Your task to perform on an android device: find photos in the google photos app Image 0: 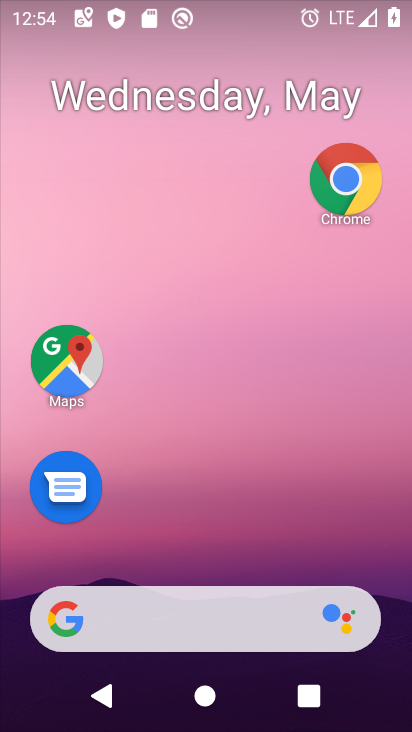
Step 0: drag from (212, 544) to (191, 121)
Your task to perform on an android device: find photos in the google photos app Image 1: 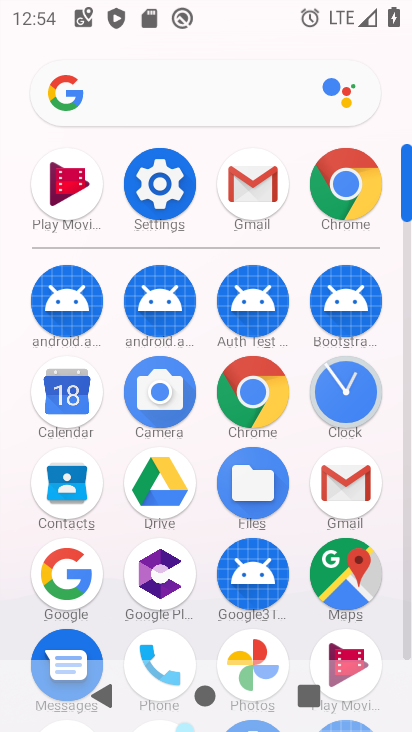
Step 1: click (251, 646)
Your task to perform on an android device: find photos in the google photos app Image 2: 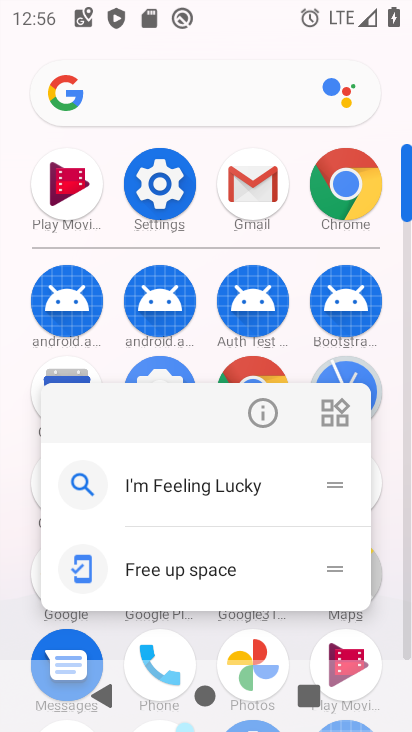
Step 2: click (257, 420)
Your task to perform on an android device: find photos in the google photos app Image 3: 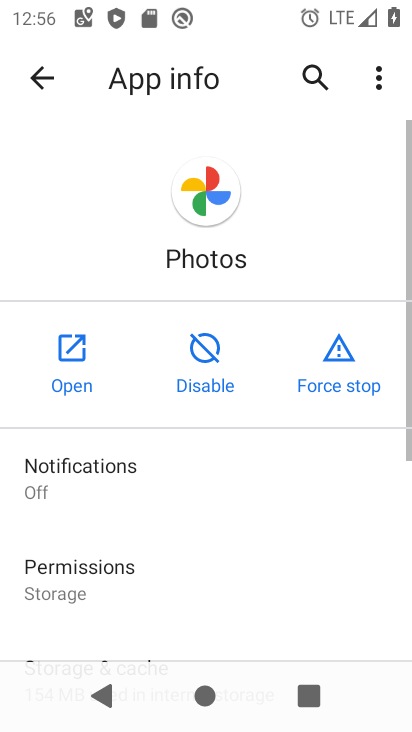
Step 3: click (62, 353)
Your task to perform on an android device: find photos in the google photos app Image 4: 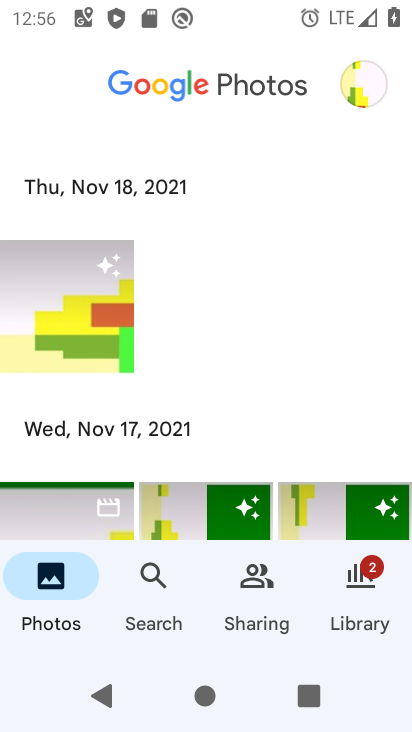
Step 4: click (61, 331)
Your task to perform on an android device: find photos in the google photos app Image 5: 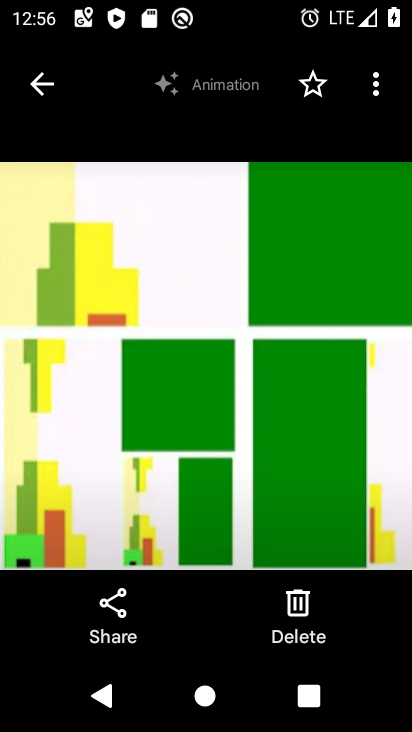
Step 5: task complete